Your task to perform on an android device: Go to network settings Image 0: 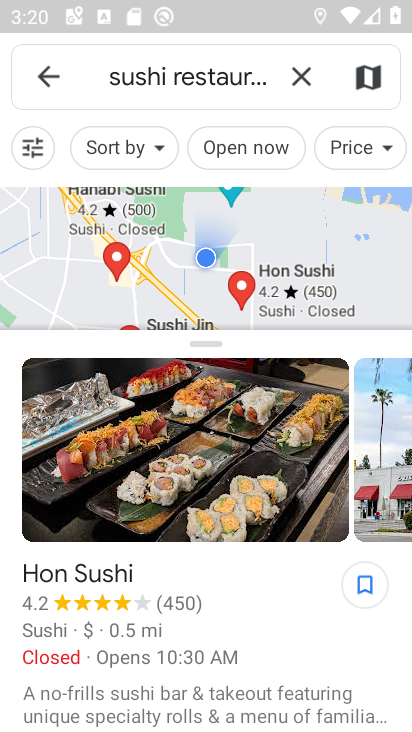
Step 0: press home button
Your task to perform on an android device: Go to network settings Image 1: 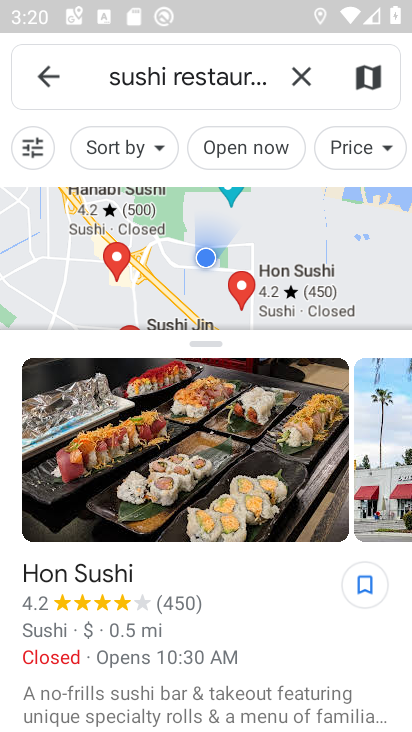
Step 1: press home button
Your task to perform on an android device: Go to network settings Image 2: 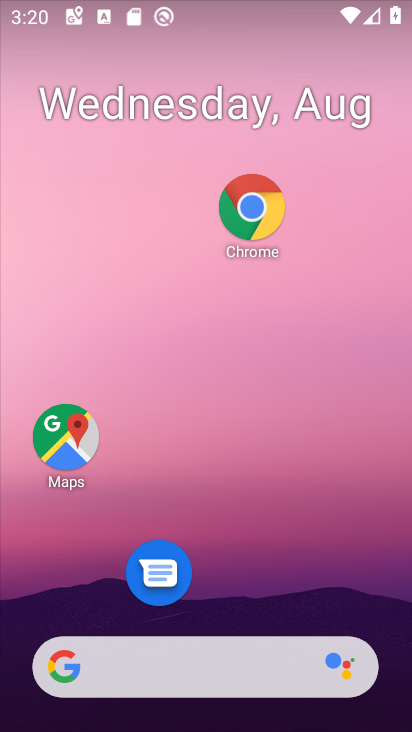
Step 2: drag from (253, 548) to (217, 19)
Your task to perform on an android device: Go to network settings Image 3: 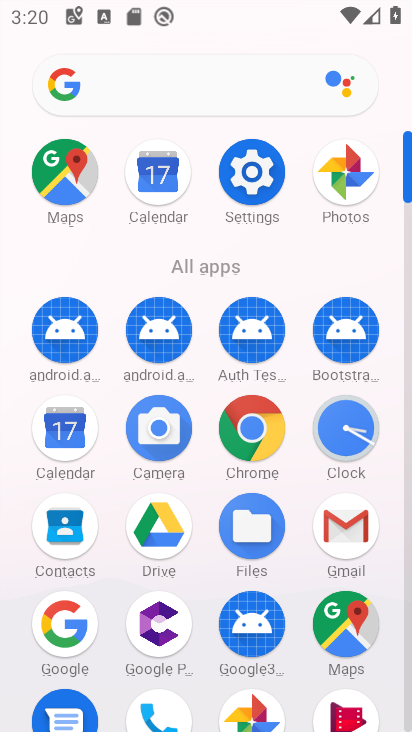
Step 3: click (239, 182)
Your task to perform on an android device: Go to network settings Image 4: 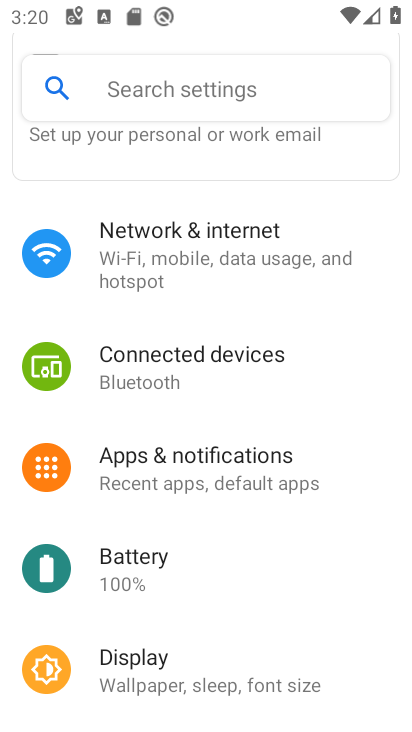
Step 4: click (237, 257)
Your task to perform on an android device: Go to network settings Image 5: 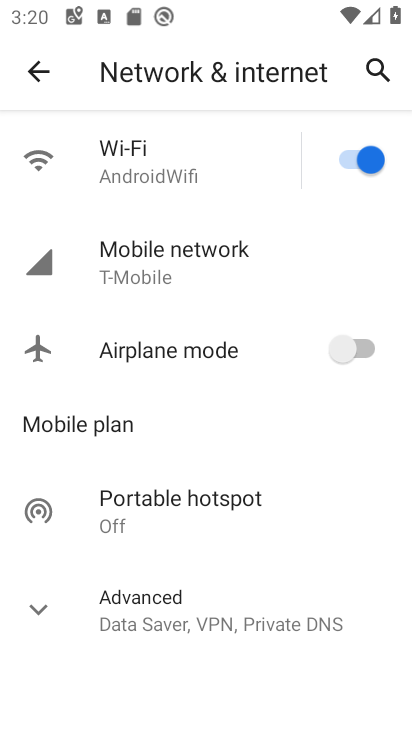
Step 5: task complete